Your task to perform on an android device: add a contact in the contacts app Image 0: 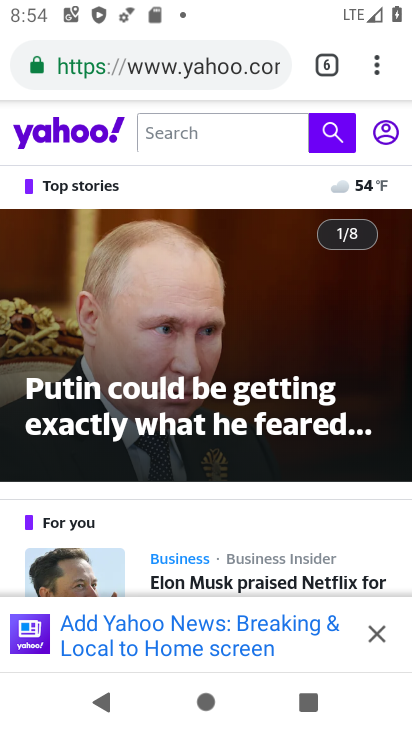
Step 0: press home button
Your task to perform on an android device: add a contact in the contacts app Image 1: 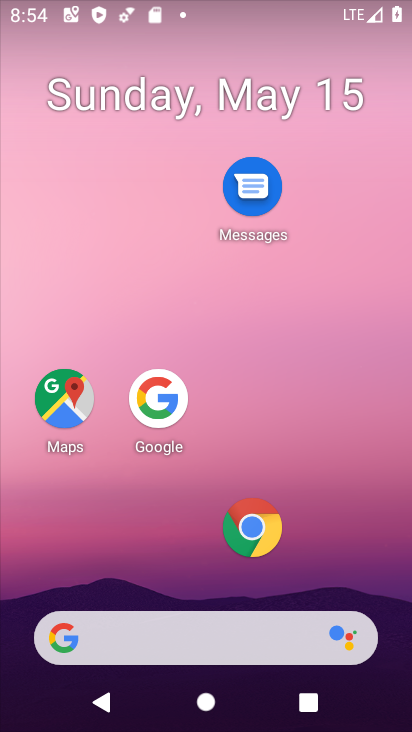
Step 1: drag from (160, 620) to (294, 58)
Your task to perform on an android device: add a contact in the contacts app Image 2: 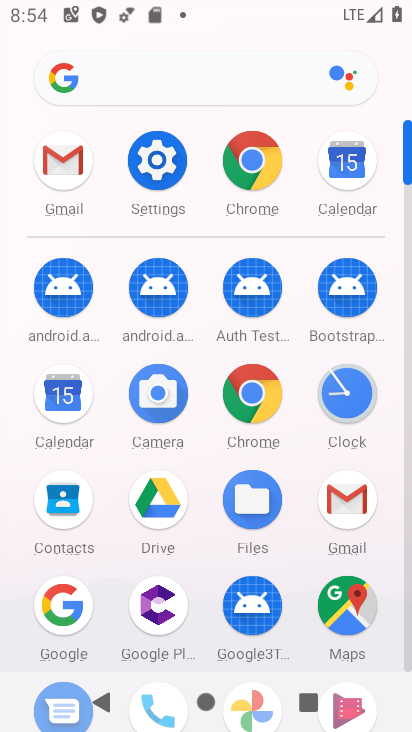
Step 2: click (65, 514)
Your task to perform on an android device: add a contact in the contacts app Image 3: 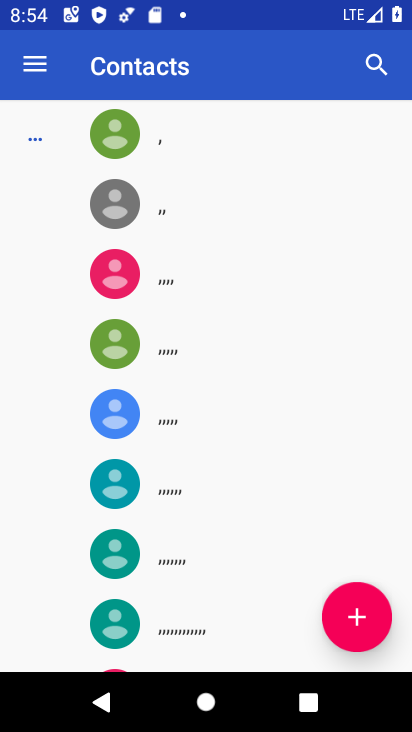
Step 3: click (344, 611)
Your task to perform on an android device: add a contact in the contacts app Image 4: 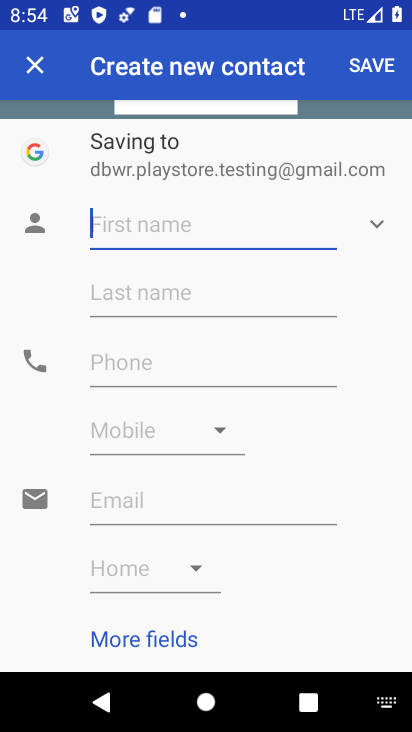
Step 4: click (123, 220)
Your task to perform on an android device: add a contact in the contacts app Image 5: 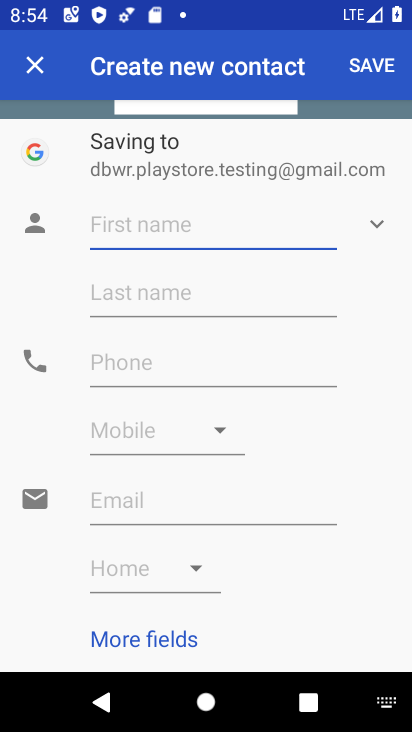
Step 5: type "bgytrfdghjhggf"
Your task to perform on an android device: add a contact in the contacts app Image 6: 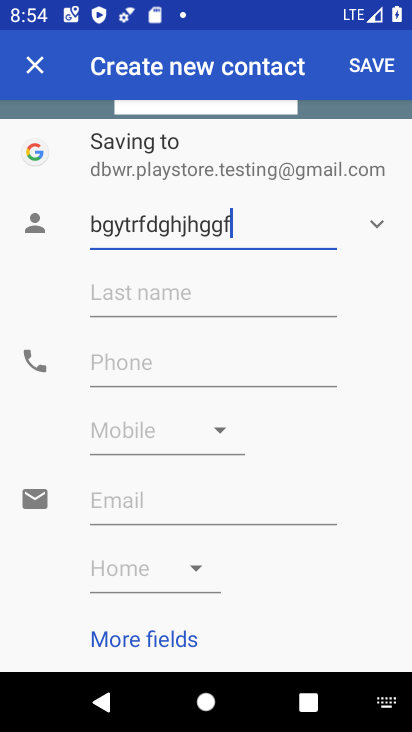
Step 6: click (113, 366)
Your task to perform on an android device: add a contact in the contacts app Image 7: 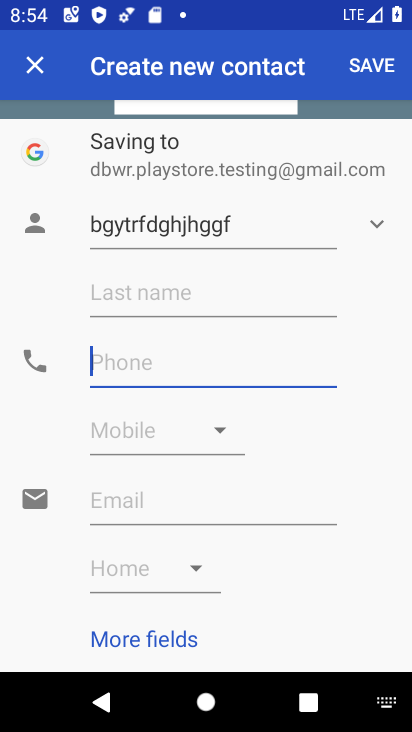
Step 7: type "729183455"
Your task to perform on an android device: add a contact in the contacts app Image 8: 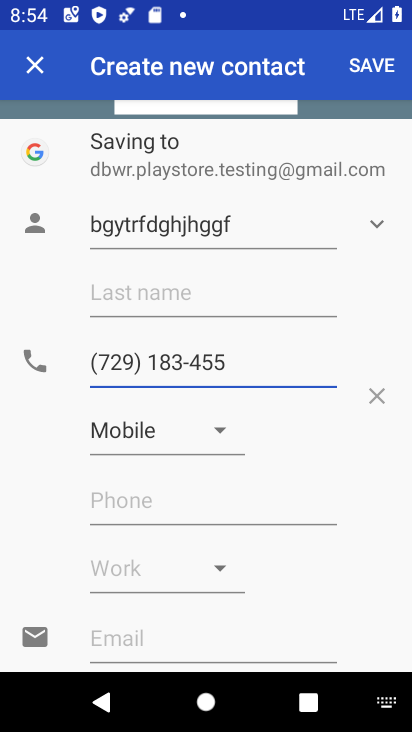
Step 8: click (383, 70)
Your task to perform on an android device: add a contact in the contacts app Image 9: 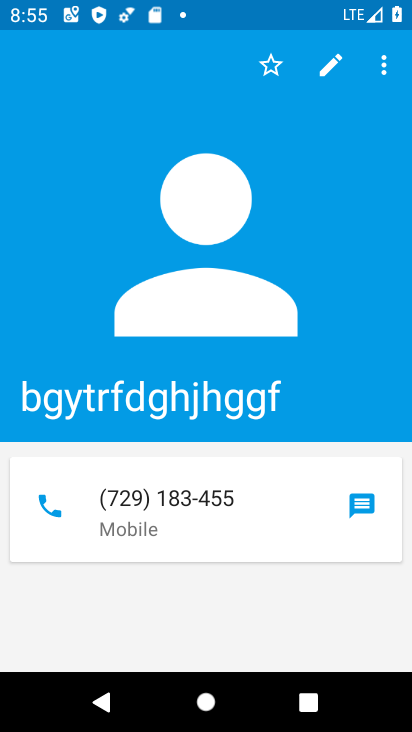
Step 9: task complete